Your task to perform on an android device: Open eBay Image 0: 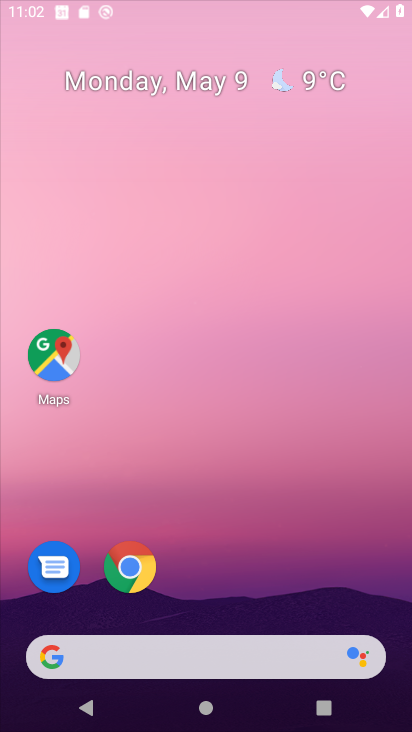
Step 0: drag from (222, 614) to (248, 64)
Your task to perform on an android device: Open eBay Image 1: 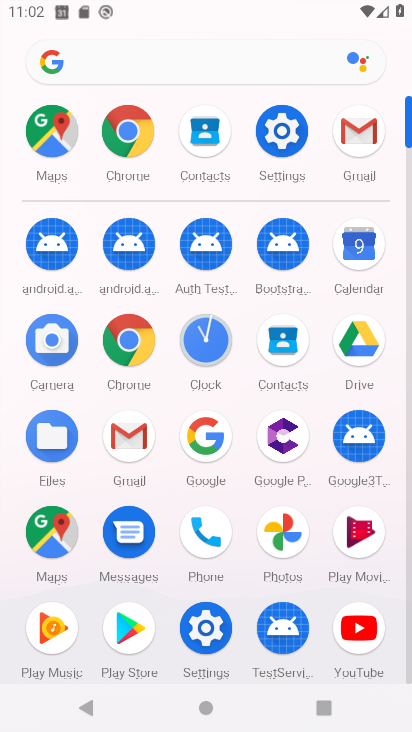
Step 1: click (124, 127)
Your task to perform on an android device: Open eBay Image 2: 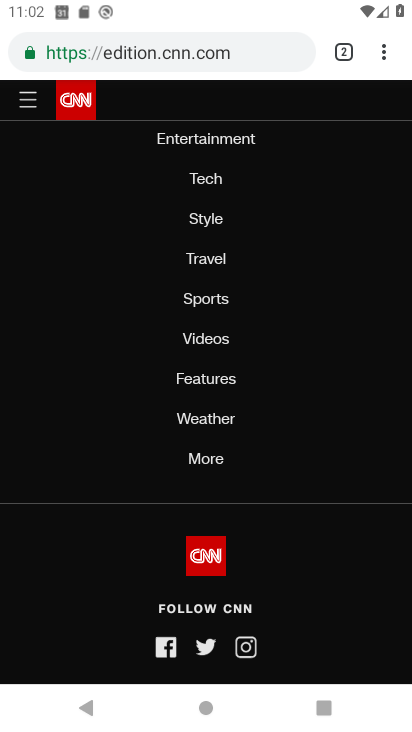
Step 2: click (345, 49)
Your task to perform on an android device: Open eBay Image 3: 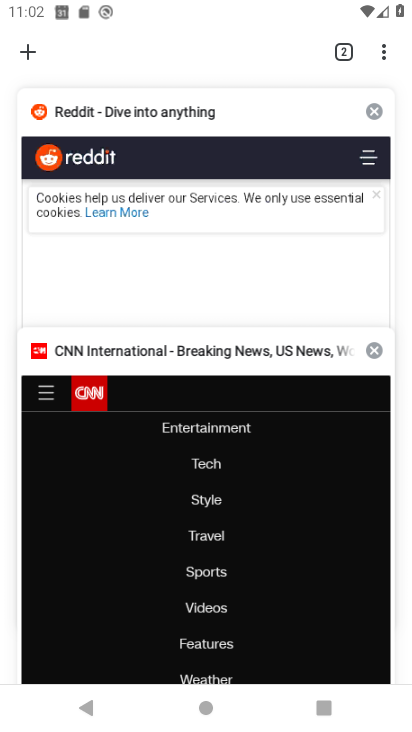
Step 3: click (374, 106)
Your task to perform on an android device: Open eBay Image 4: 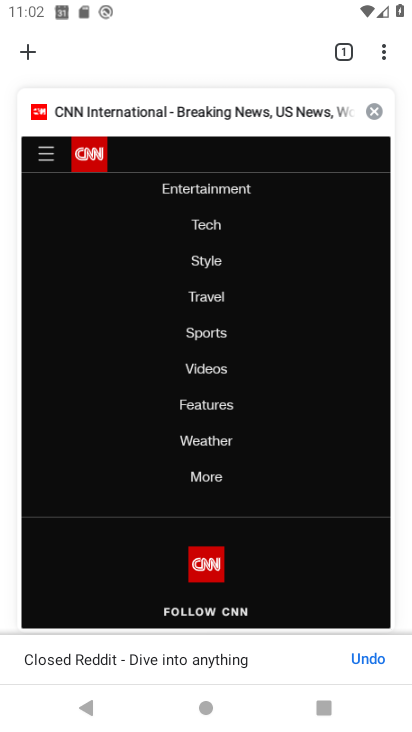
Step 4: click (371, 108)
Your task to perform on an android device: Open eBay Image 5: 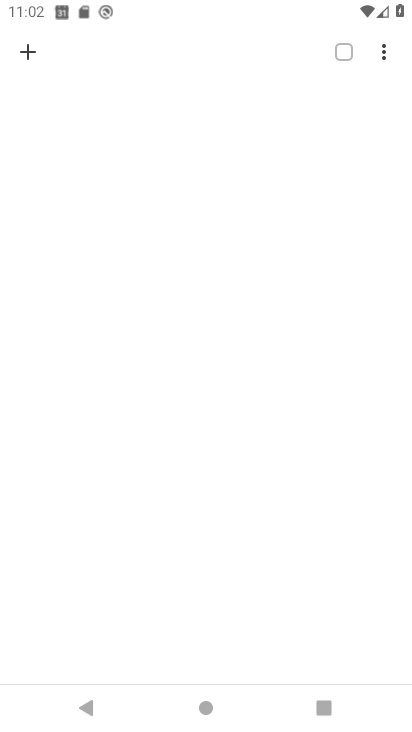
Step 5: click (34, 55)
Your task to perform on an android device: Open eBay Image 6: 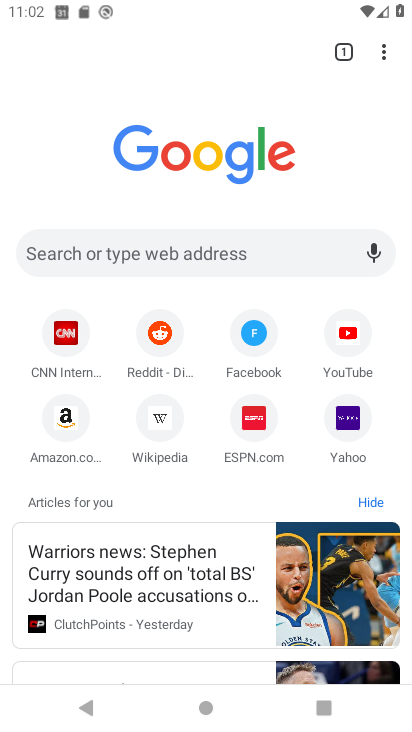
Step 6: click (126, 245)
Your task to perform on an android device: Open eBay Image 7: 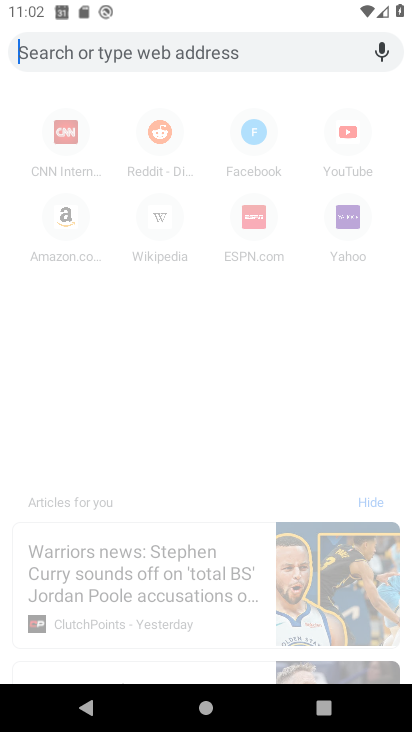
Step 7: type "ebay"
Your task to perform on an android device: Open eBay Image 8: 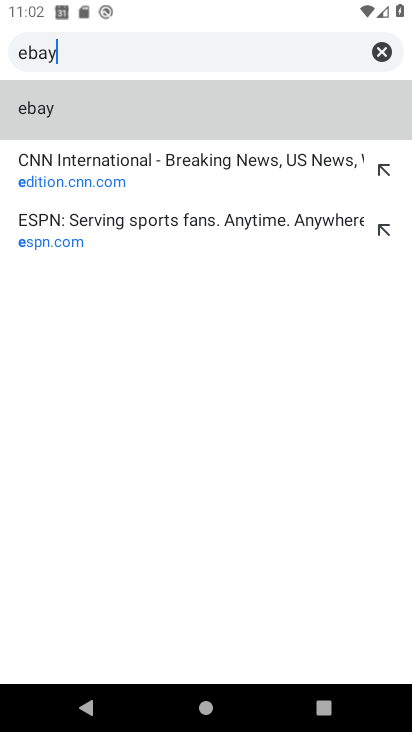
Step 8: type ""
Your task to perform on an android device: Open eBay Image 9: 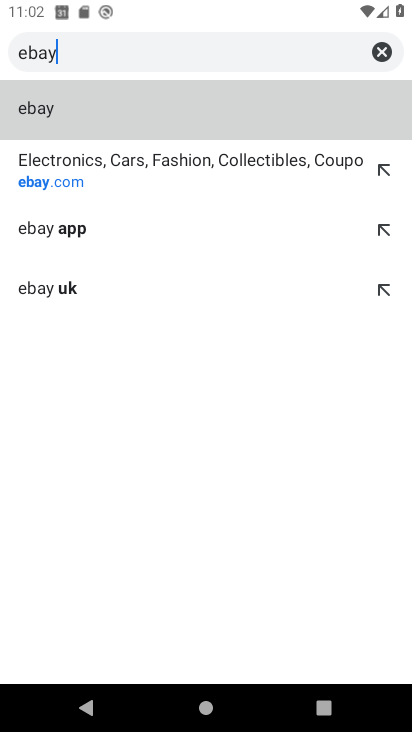
Step 9: click (100, 173)
Your task to perform on an android device: Open eBay Image 10: 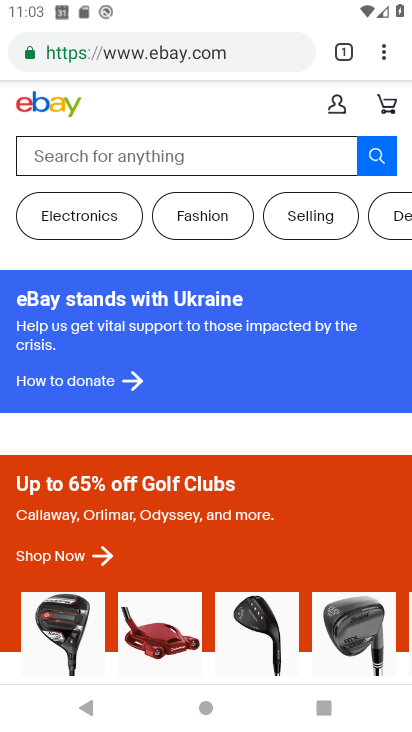
Step 10: task complete